Your task to perform on an android device: install app "DuckDuckGo Privacy Browser" Image 0: 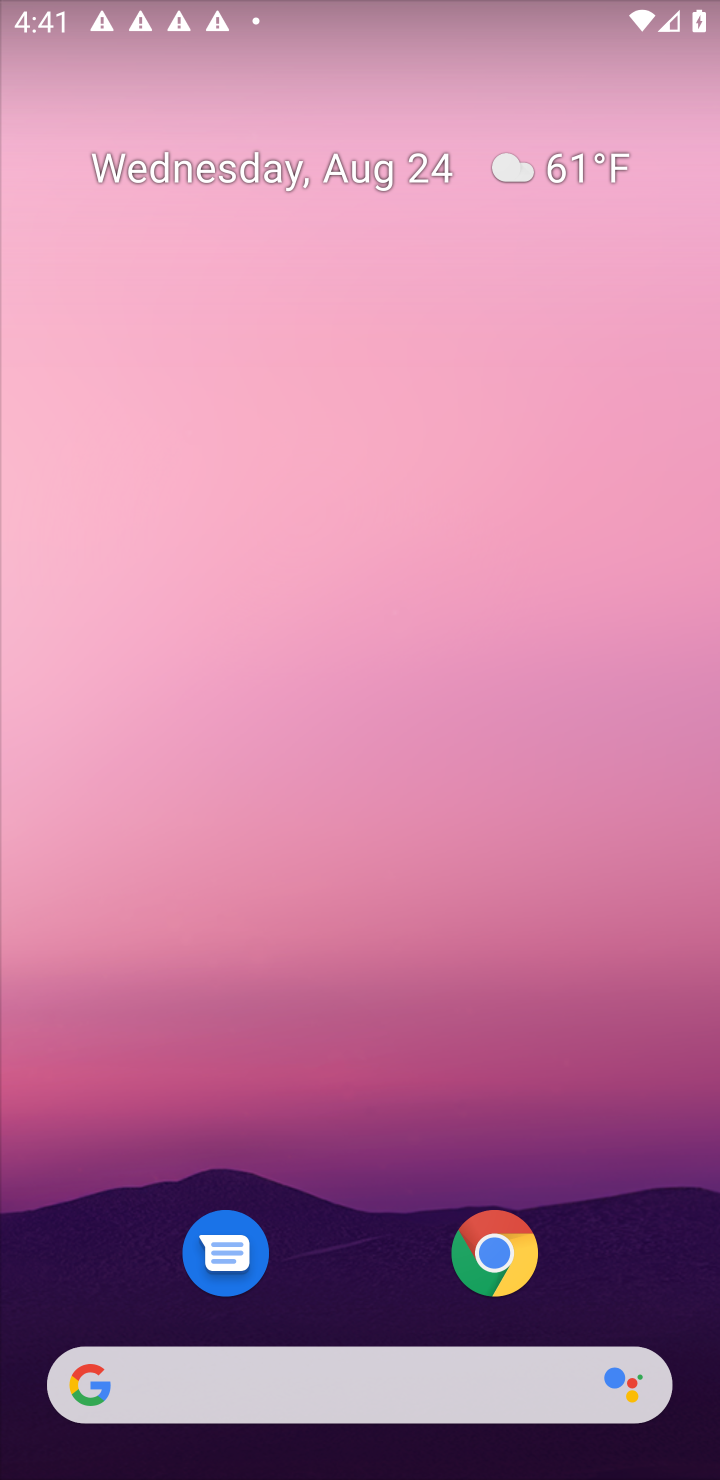
Step 0: press back button
Your task to perform on an android device: install app "DuckDuckGo Privacy Browser" Image 1: 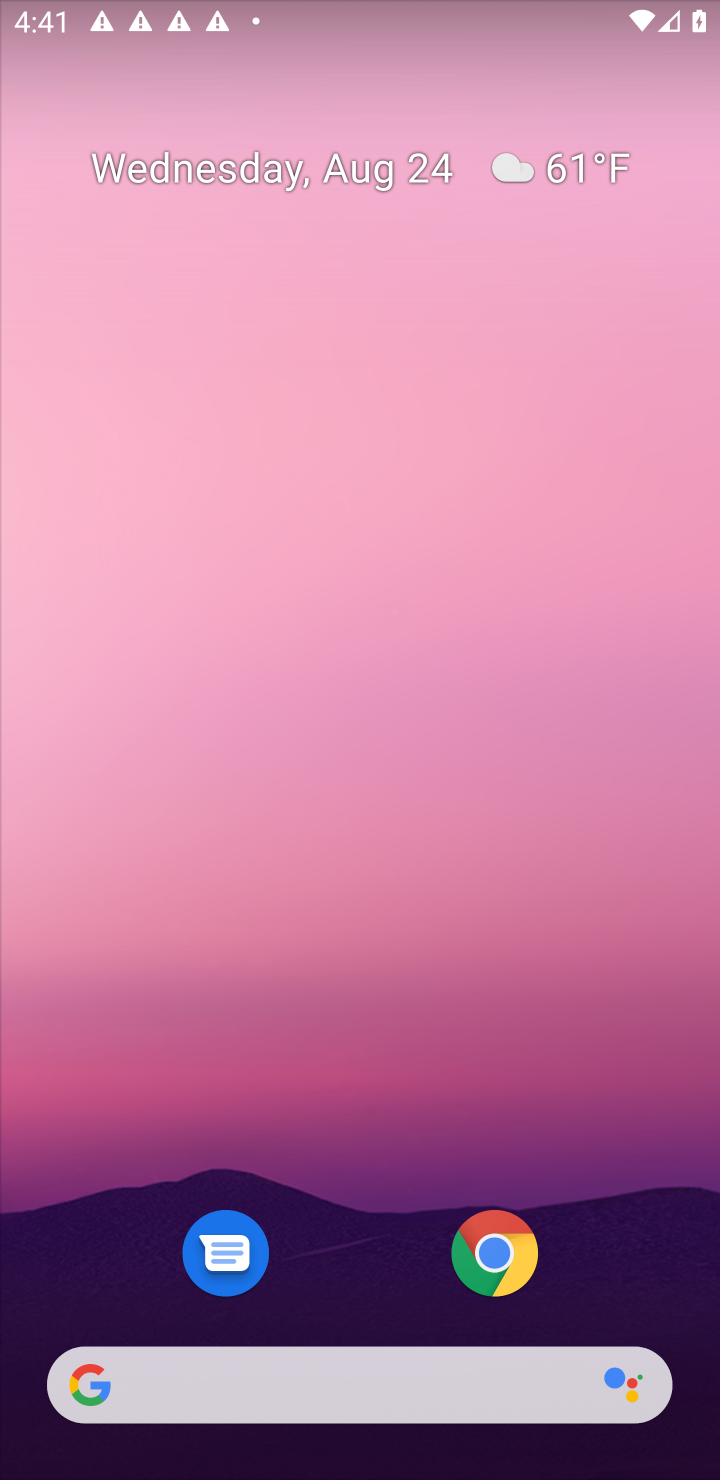
Step 1: drag from (353, 1260) to (487, 0)
Your task to perform on an android device: install app "DuckDuckGo Privacy Browser" Image 2: 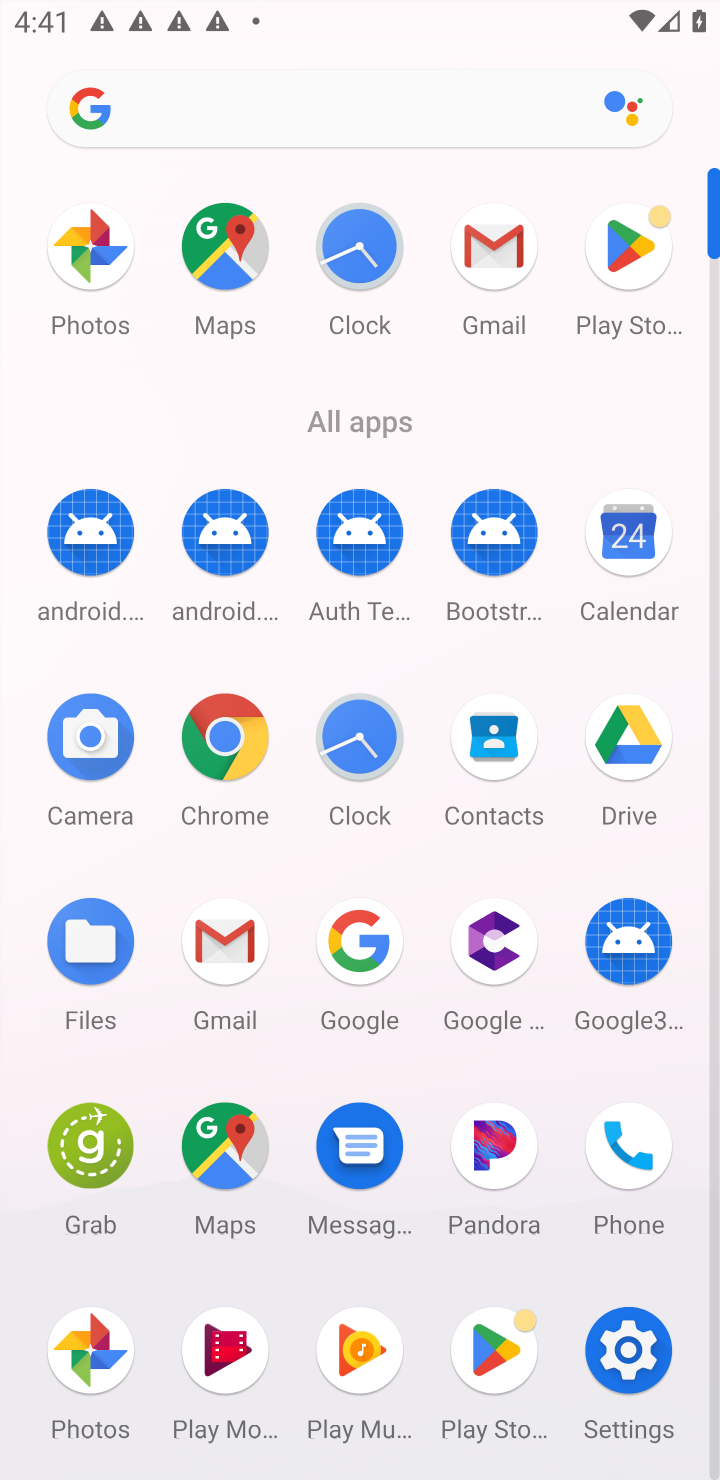
Step 2: click (629, 256)
Your task to perform on an android device: install app "DuckDuckGo Privacy Browser" Image 3: 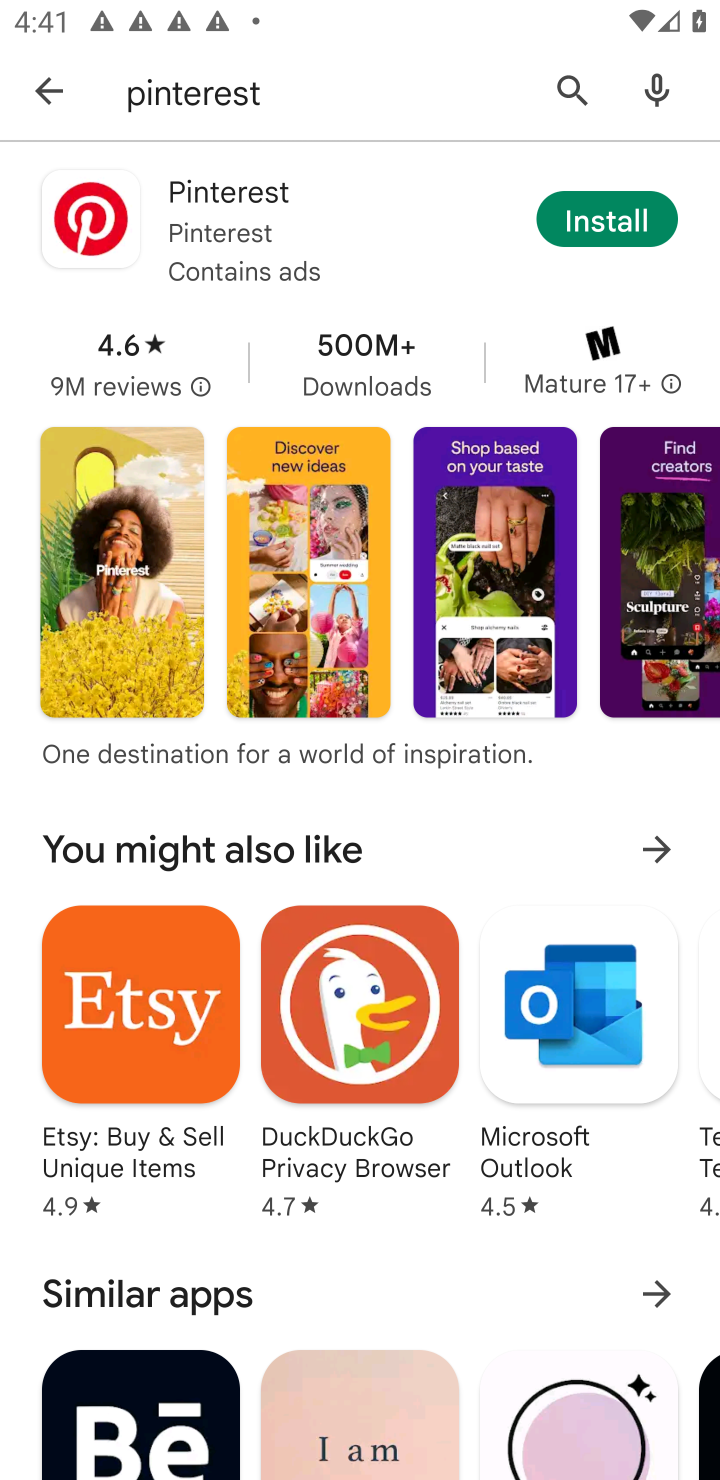
Step 3: click (531, 91)
Your task to perform on an android device: install app "DuckDuckGo Privacy Browser" Image 4: 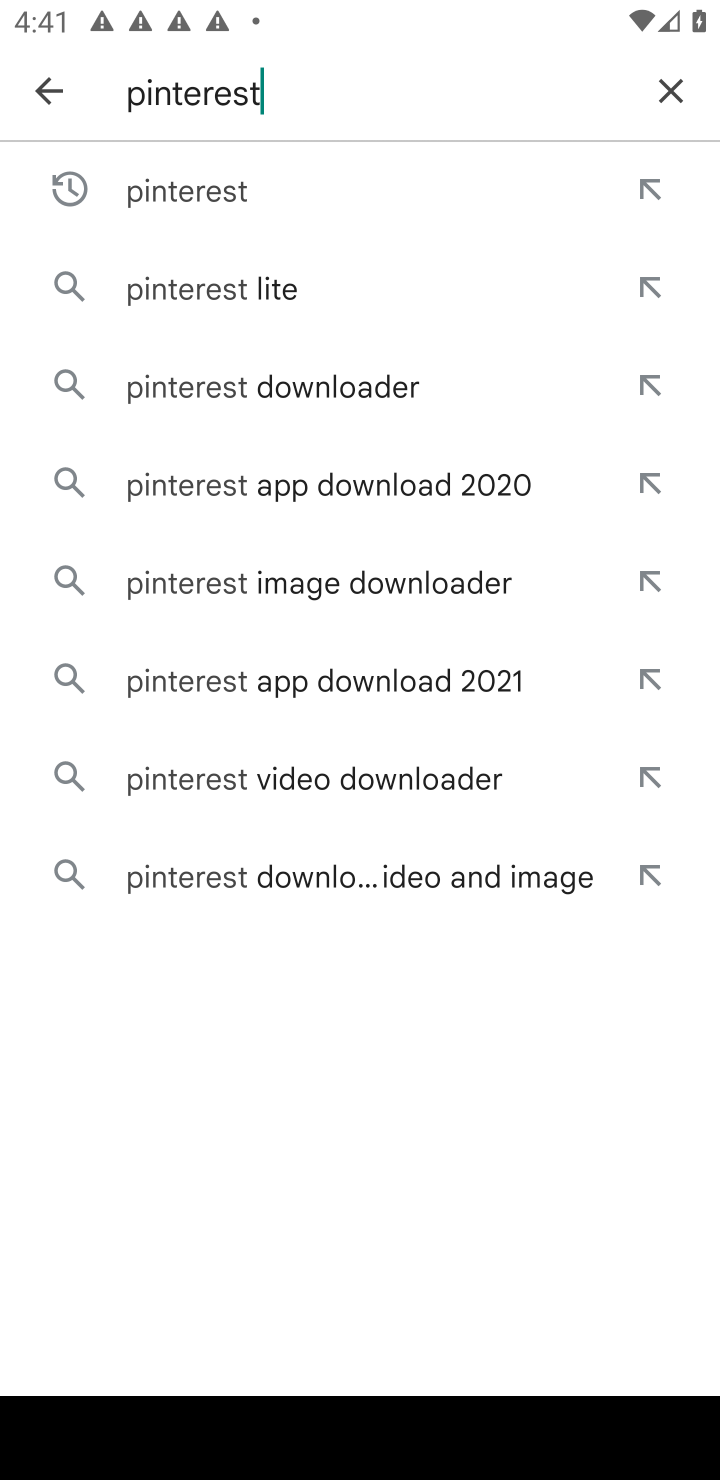
Step 4: click (679, 88)
Your task to perform on an android device: install app "DuckDuckGo Privacy Browser" Image 5: 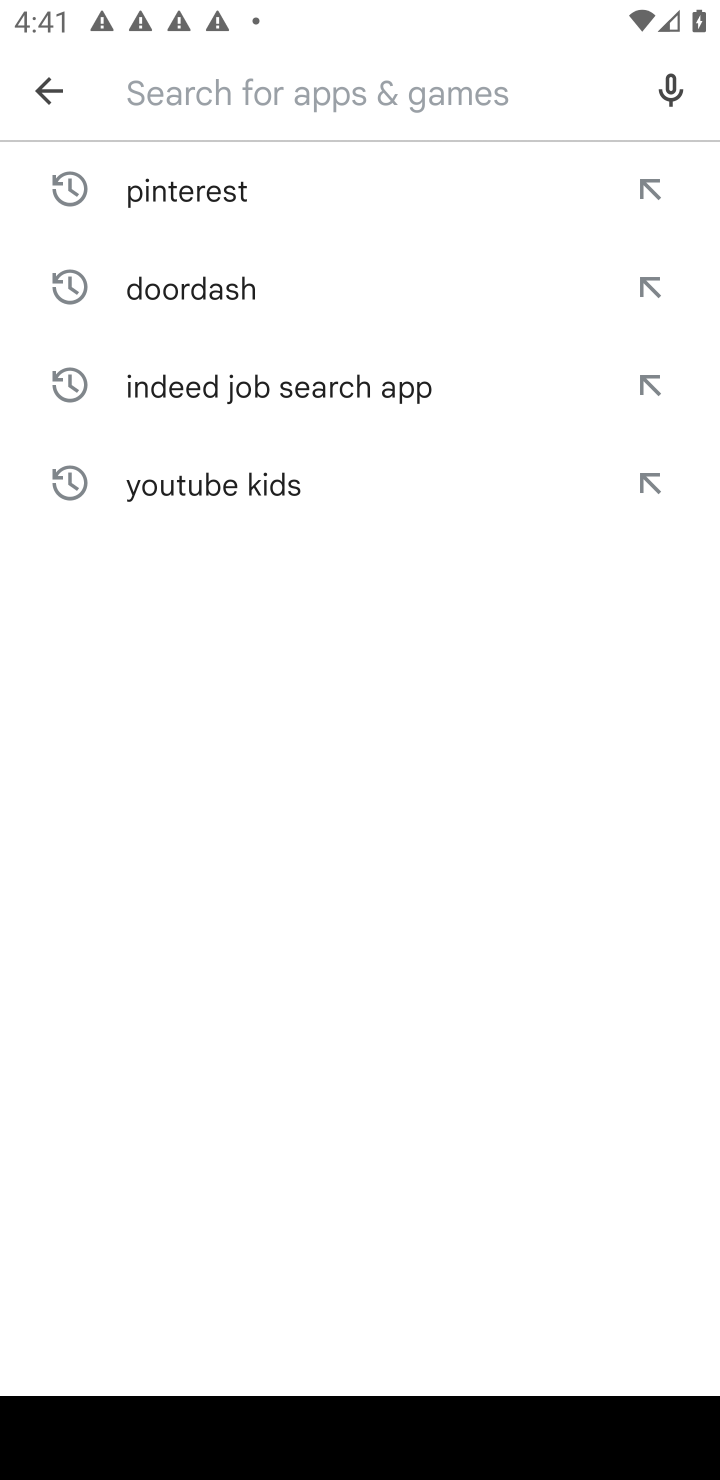
Step 5: click (246, 90)
Your task to perform on an android device: install app "DuckDuckGo Privacy Browser" Image 6: 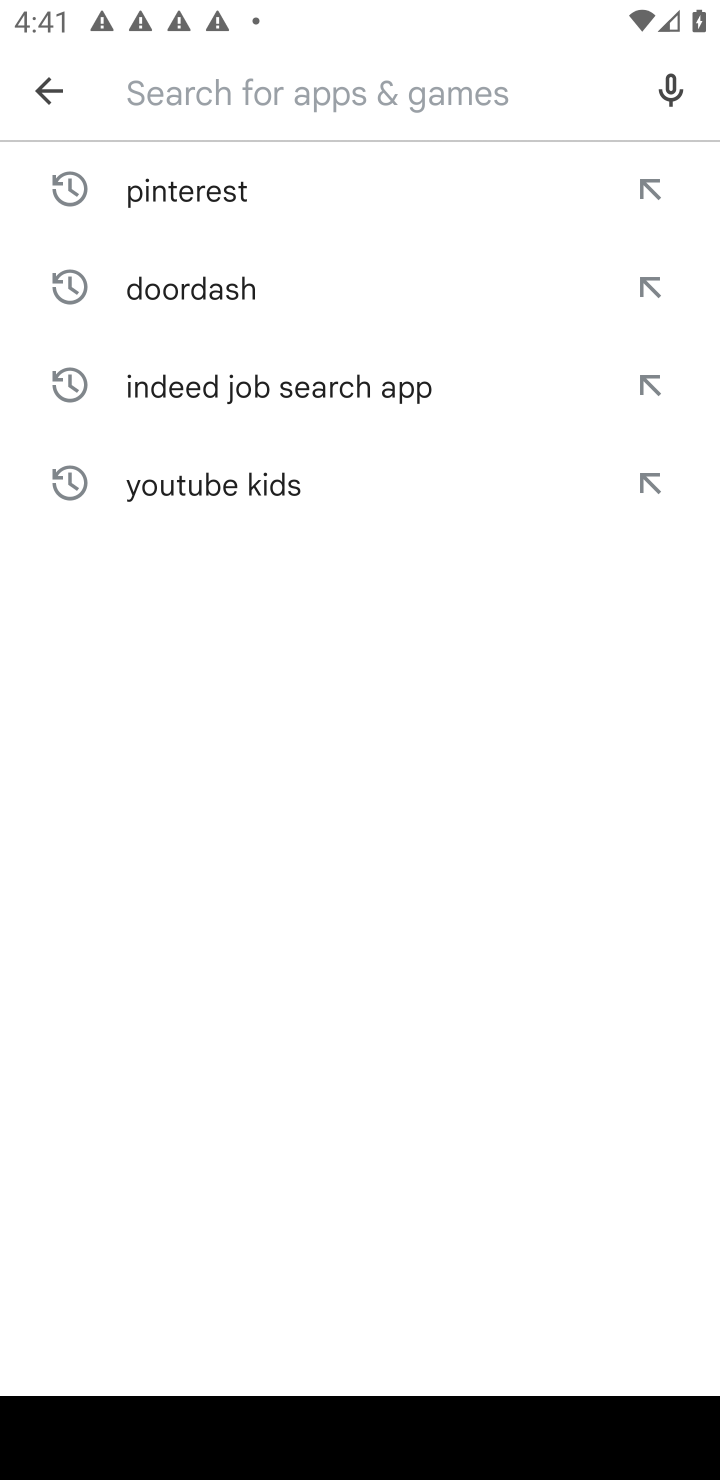
Step 6: type "DuckDuckGo Privacy Browser"
Your task to perform on an android device: install app "DuckDuckGo Privacy Browser" Image 7: 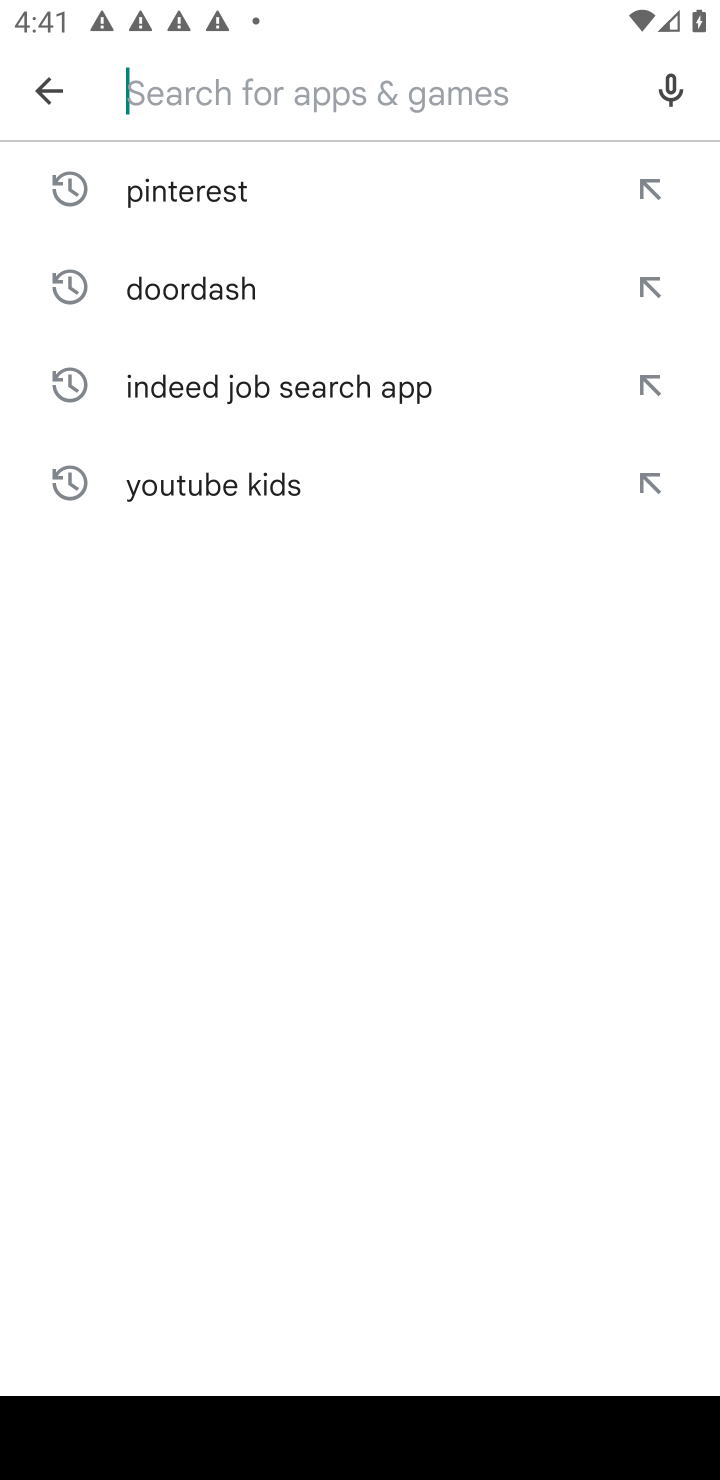
Step 7: click (345, 1002)
Your task to perform on an android device: install app "DuckDuckGo Privacy Browser" Image 8: 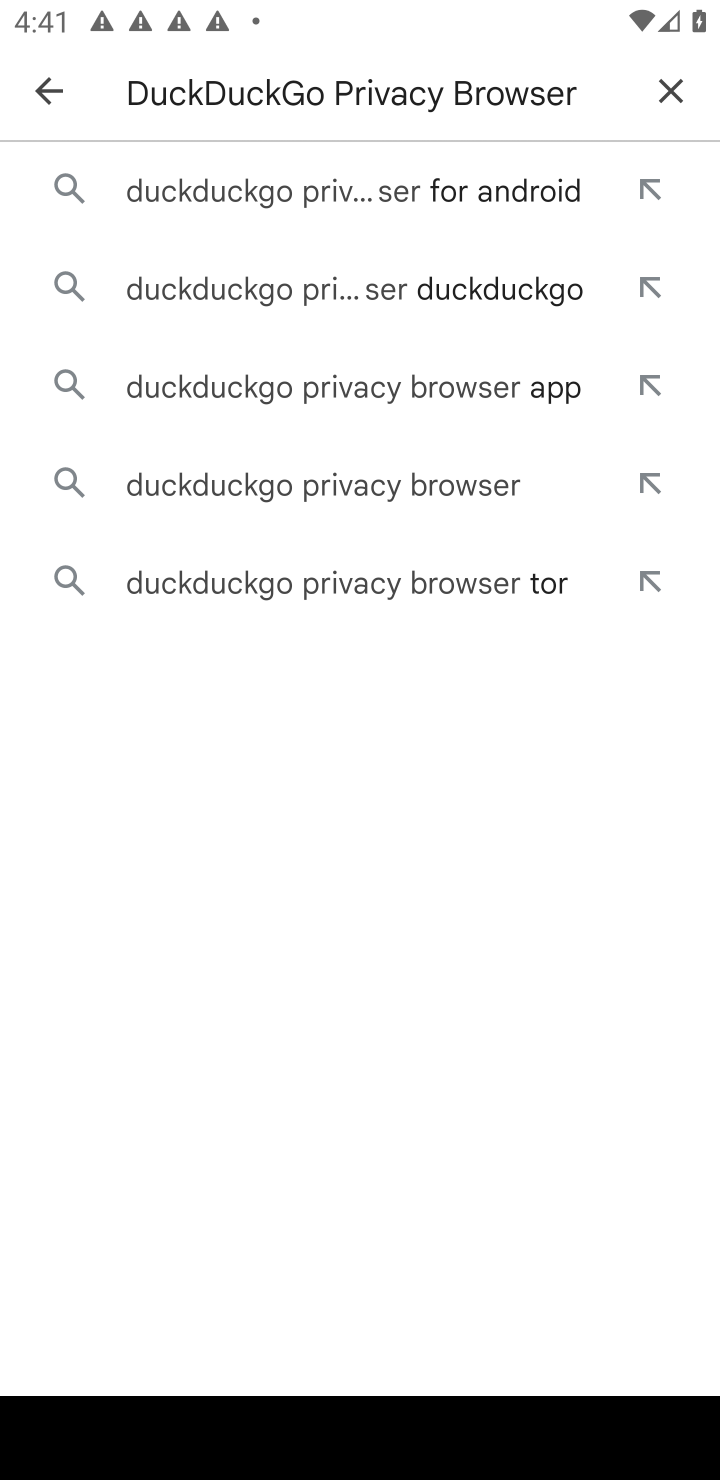
Step 8: click (346, 188)
Your task to perform on an android device: install app "DuckDuckGo Privacy Browser" Image 9: 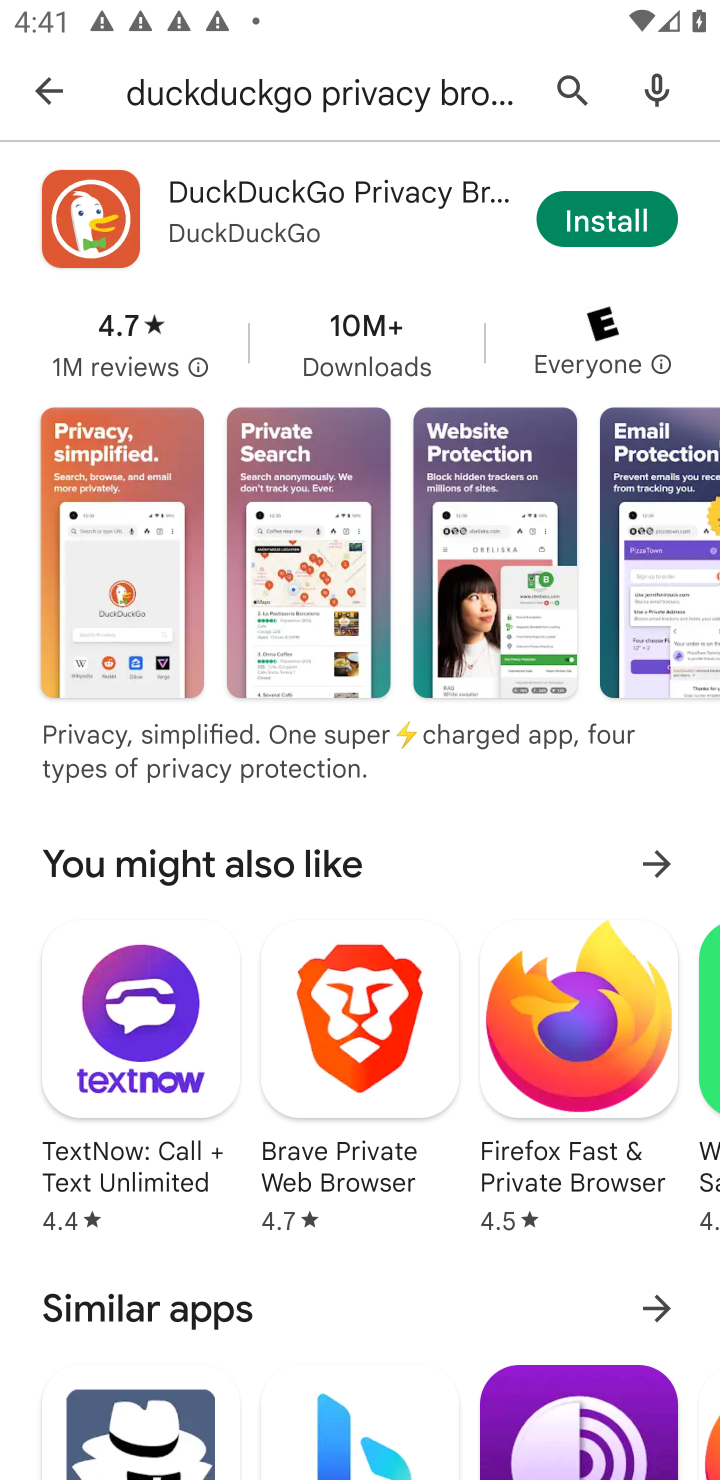
Step 9: click (588, 225)
Your task to perform on an android device: install app "DuckDuckGo Privacy Browser" Image 10: 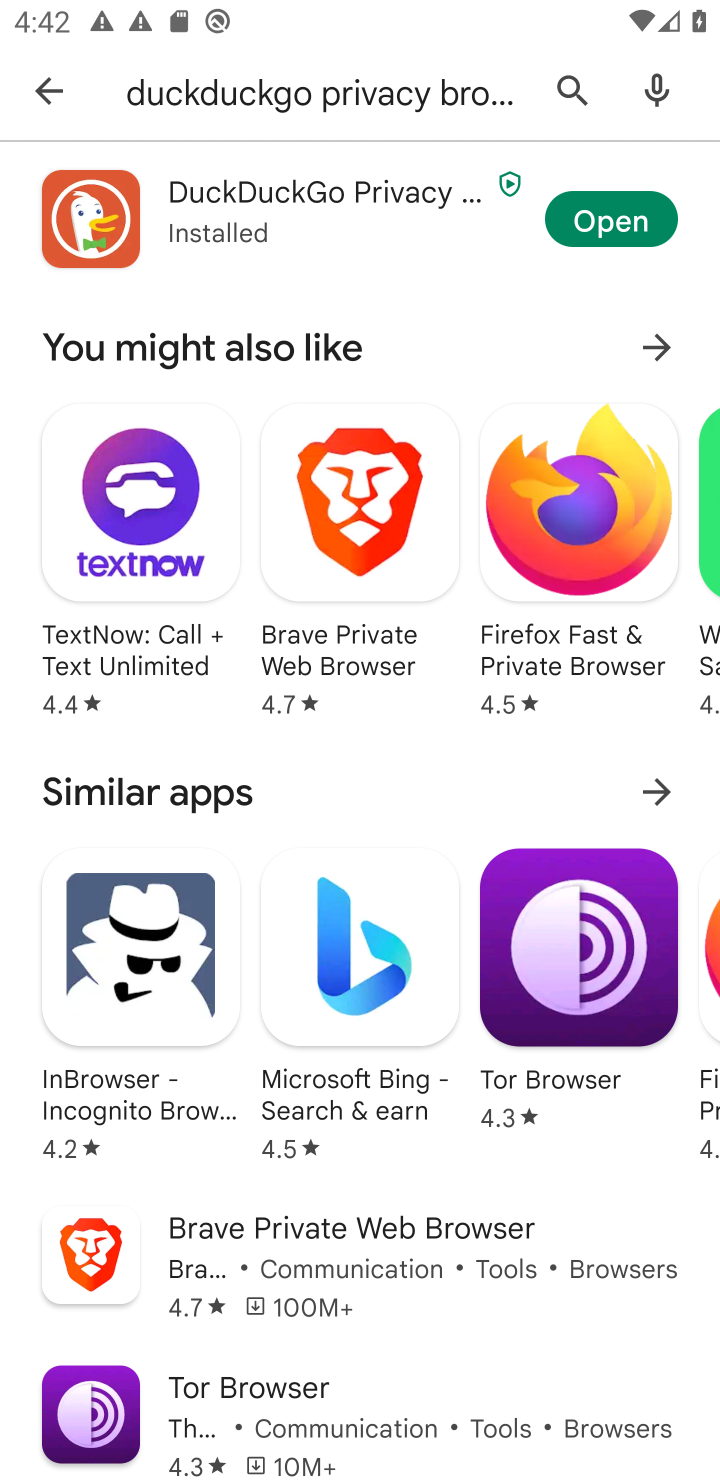
Step 10: task complete